Your task to perform on an android device: Go to Reddit.com Image 0: 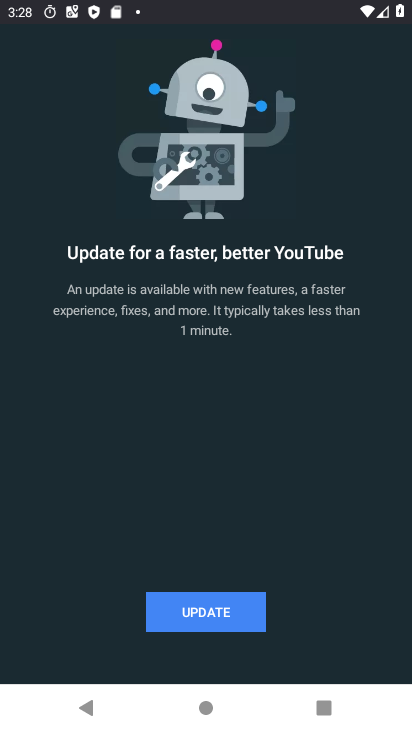
Step 0: press home button
Your task to perform on an android device: Go to Reddit.com Image 1: 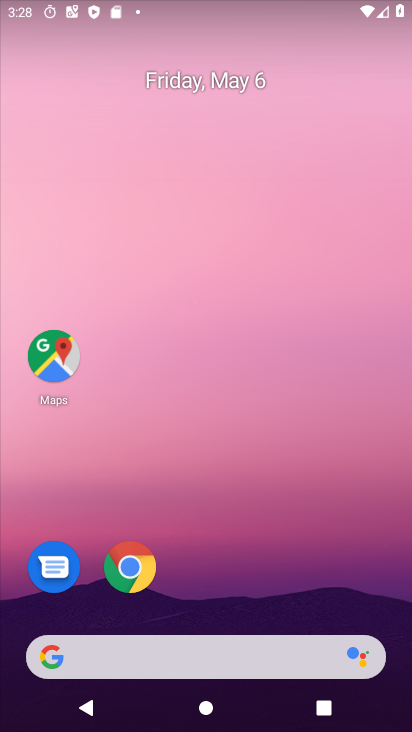
Step 1: click (127, 565)
Your task to perform on an android device: Go to Reddit.com Image 2: 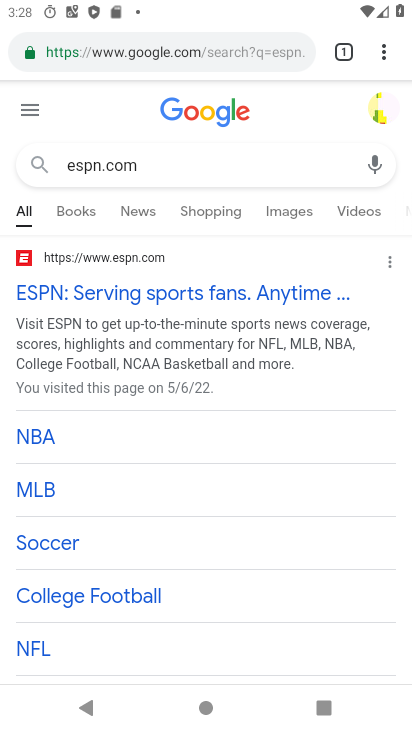
Step 2: click (127, 571)
Your task to perform on an android device: Go to Reddit.com Image 3: 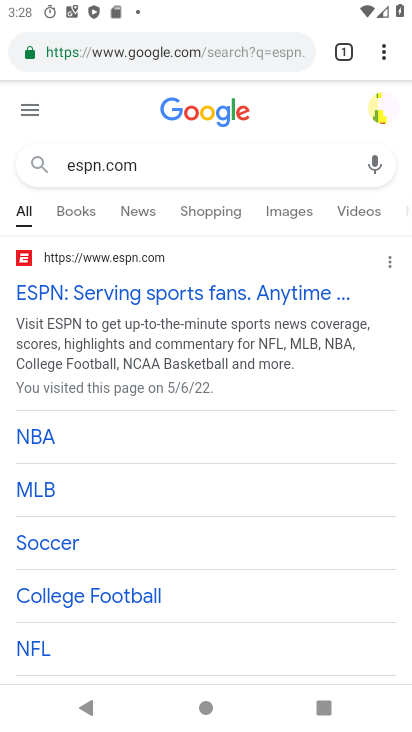
Step 3: click (128, 54)
Your task to perform on an android device: Go to Reddit.com Image 4: 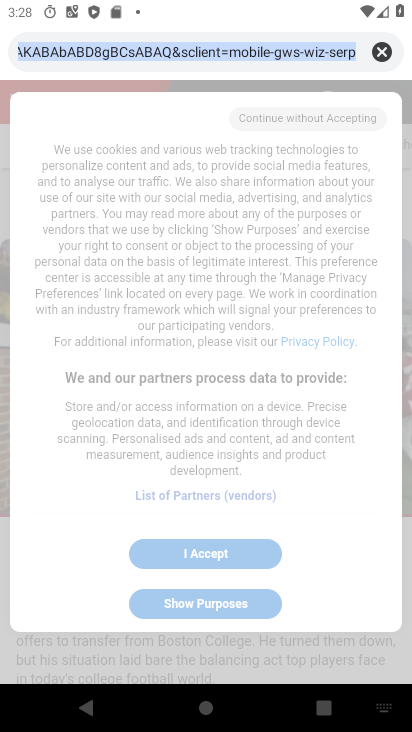
Step 4: type "reddit.com"
Your task to perform on an android device: Go to Reddit.com Image 5: 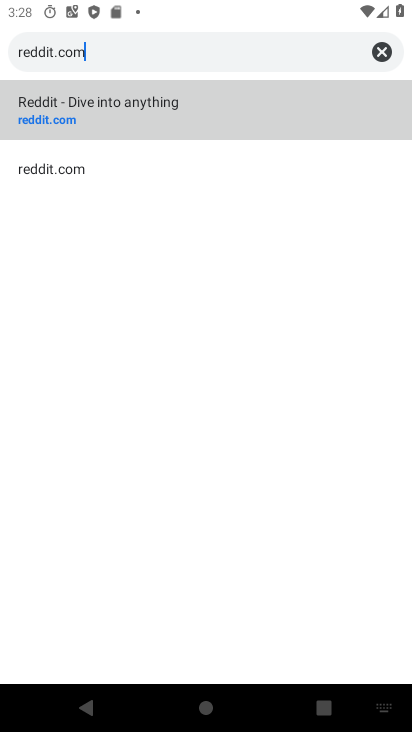
Step 5: click (61, 125)
Your task to perform on an android device: Go to Reddit.com Image 6: 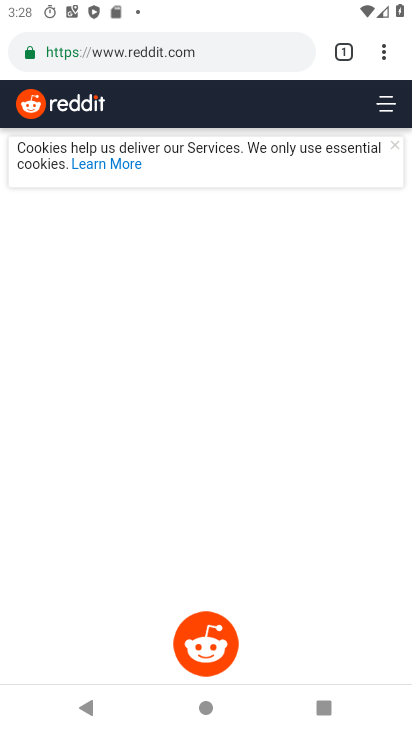
Step 6: task complete